Your task to perform on an android device: Set the phone to "Do not disturb". Image 0: 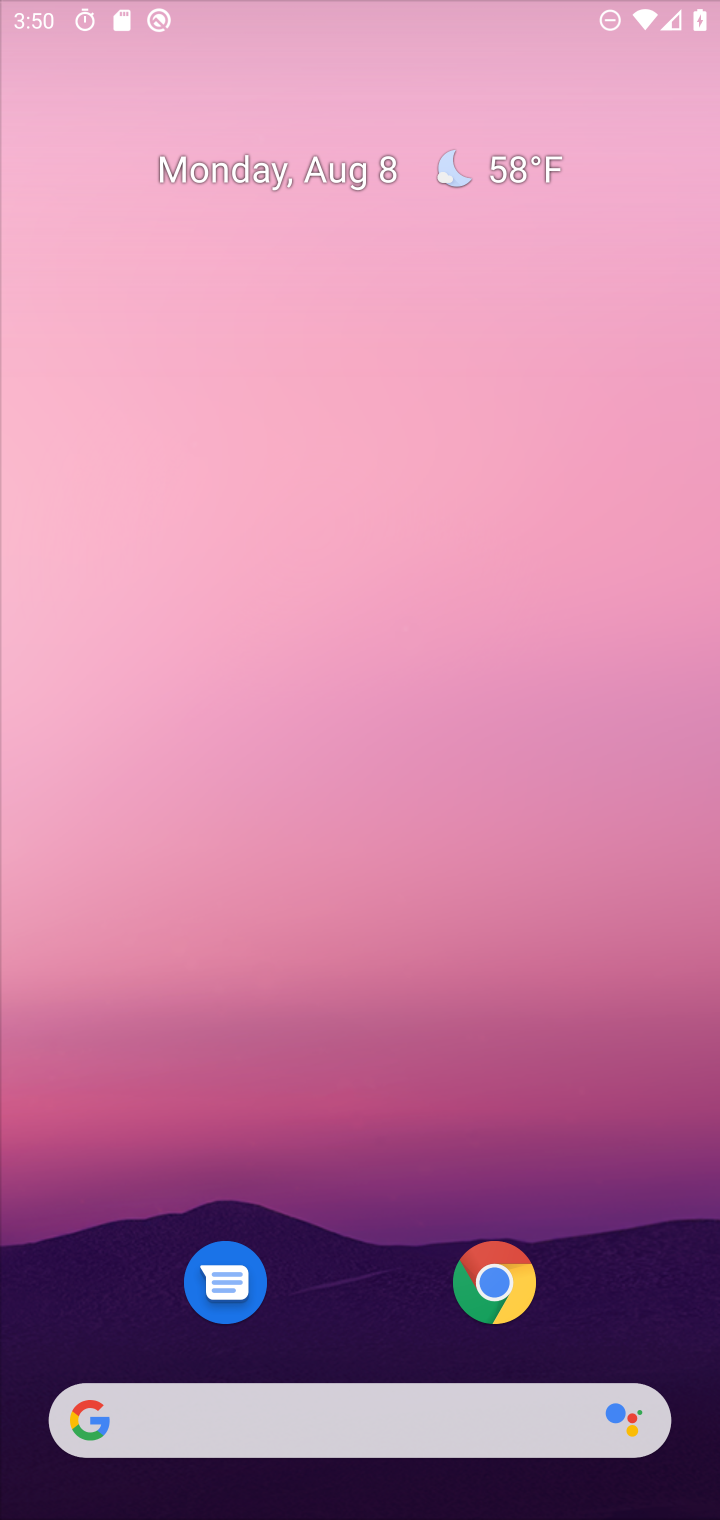
Step 0: press home button
Your task to perform on an android device: Set the phone to "Do not disturb". Image 1: 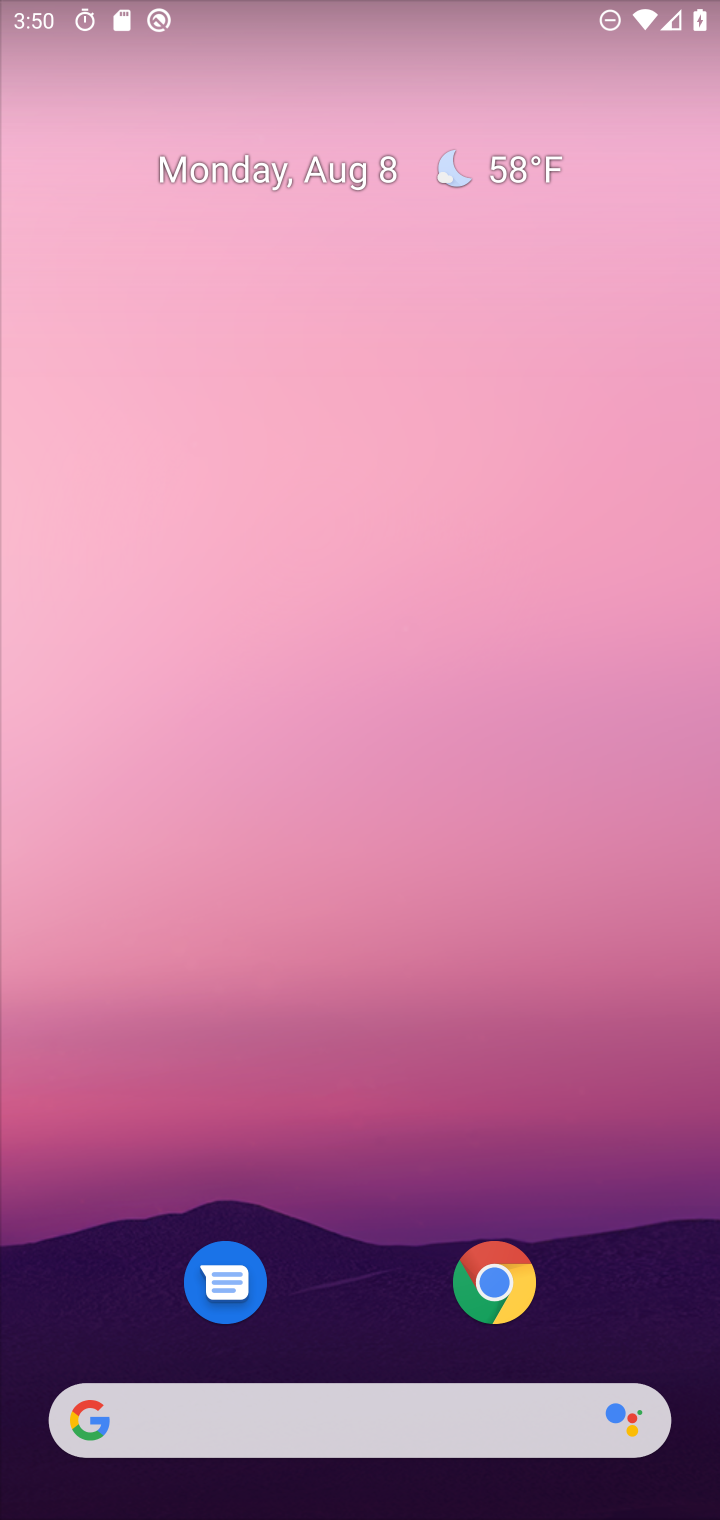
Step 1: task complete